Your task to perform on an android device: open app "Truecaller" (install if not already installed), go to login, and select forgot password Image 0: 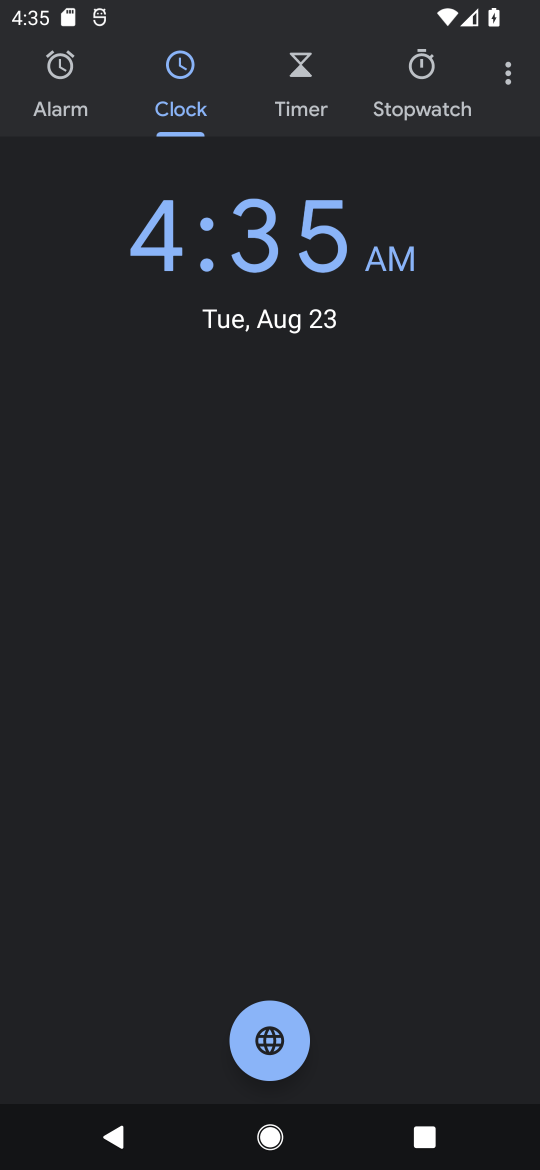
Step 0: press home button
Your task to perform on an android device: open app "Truecaller" (install if not already installed), go to login, and select forgot password Image 1: 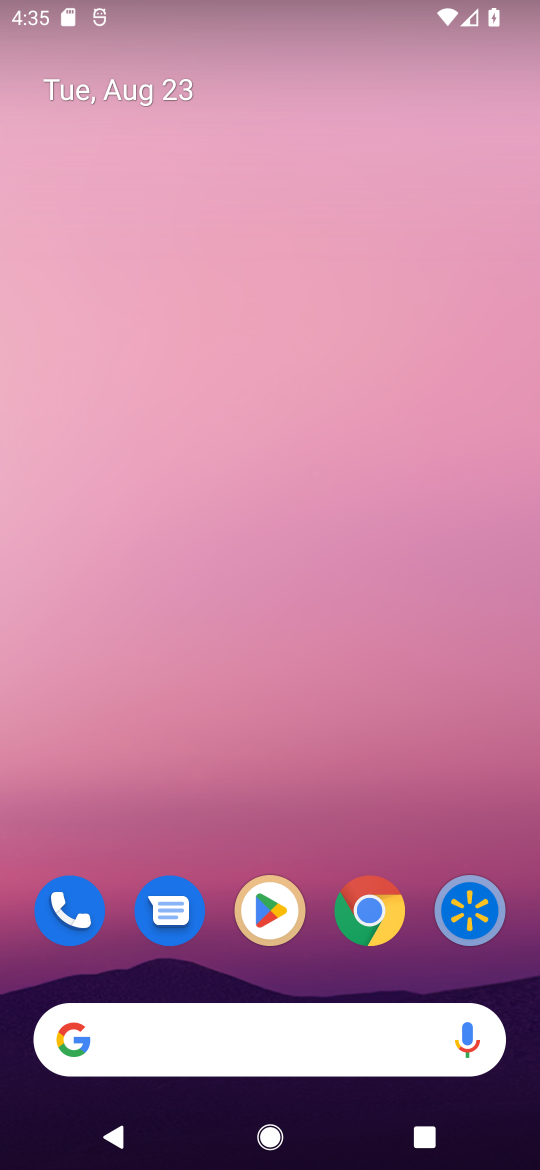
Step 1: drag from (311, 1006) to (259, 220)
Your task to perform on an android device: open app "Truecaller" (install if not already installed), go to login, and select forgot password Image 2: 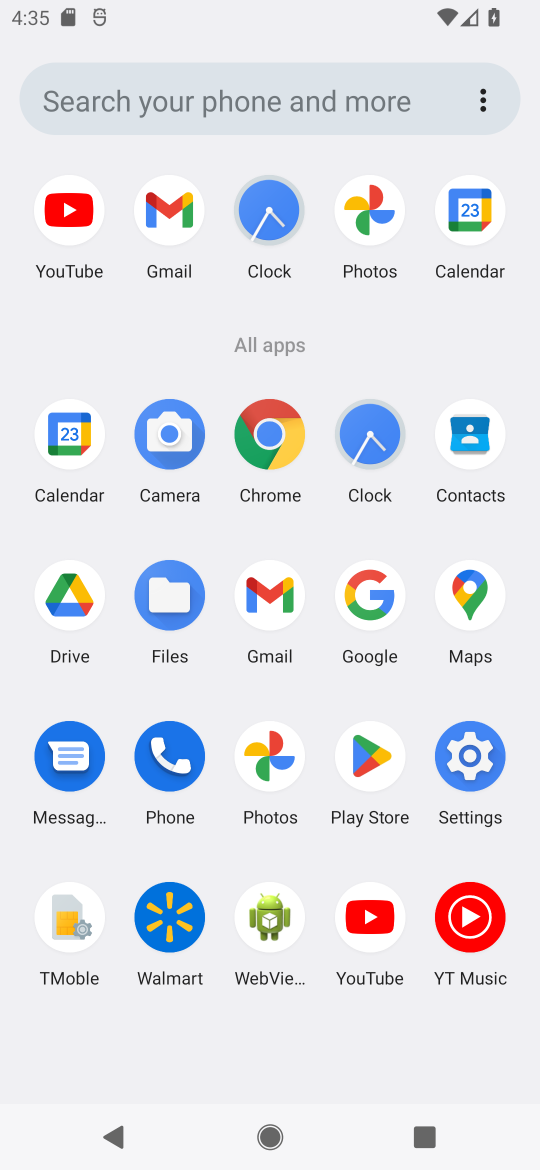
Step 2: click (356, 747)
Your task to perform on an android device: open app "Truecaller" (install if not already installed), go to login, and select forgot password Image 3: 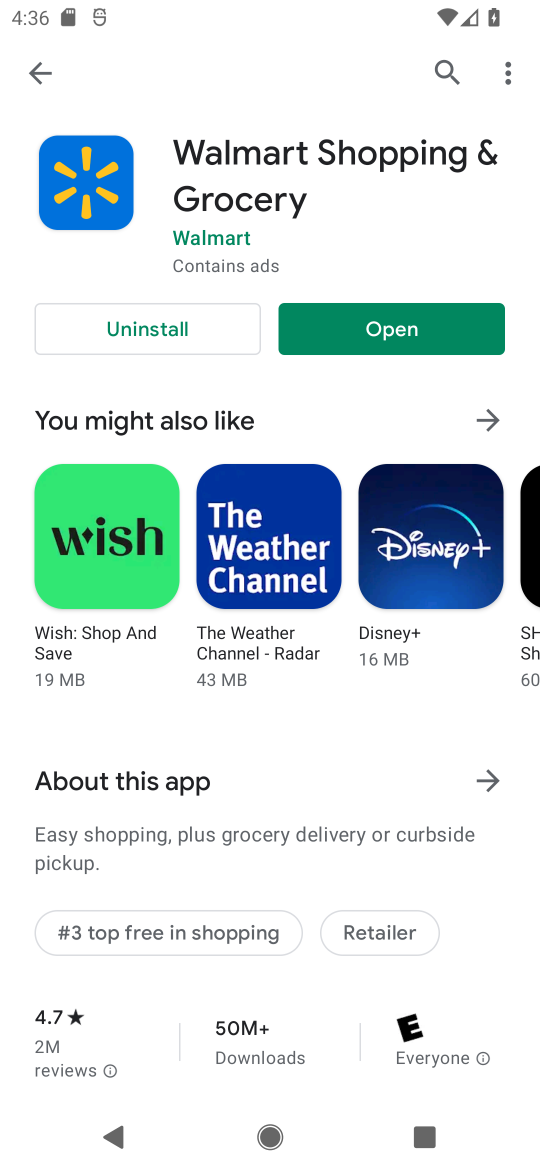
Step 3: click (444, 70)
Your task to perform on an android device: open app "Truecaller" (install if not already installed), go to login, and select forgot password Image 4: 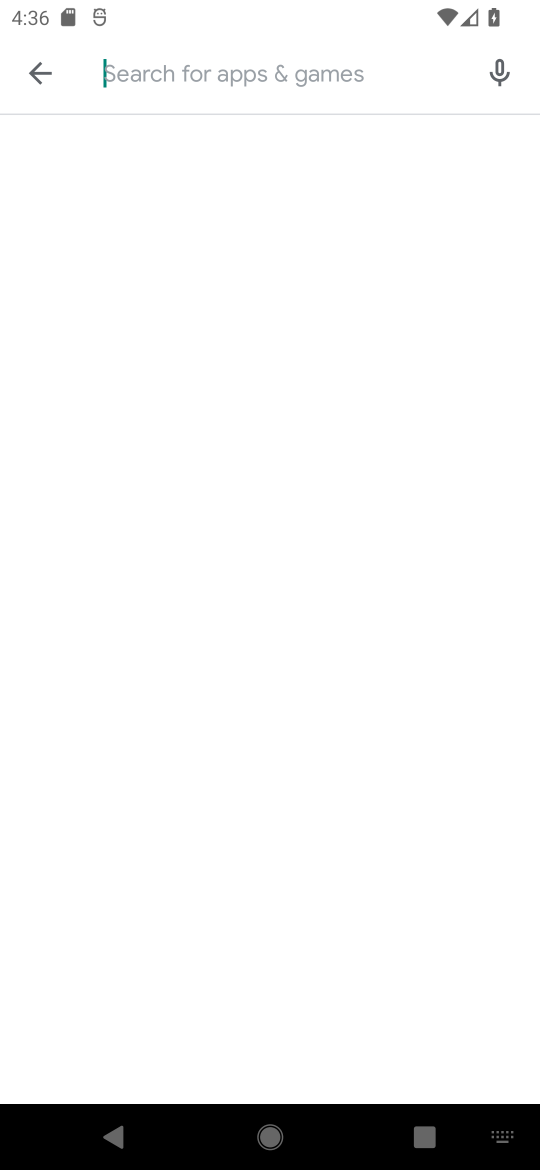
Step 4: type "Truecaller"
Your task to perform on an android device: open app "Truecaller" (install if not already installed), go to login, and select forgot password Image 5: 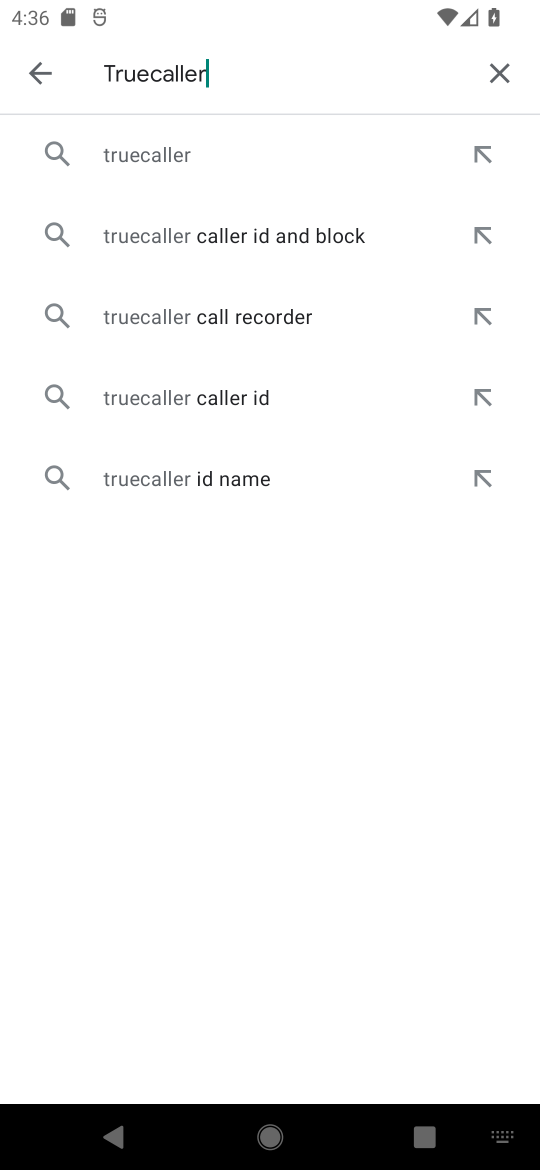
Step 5: click (131, 165)
Your task to perform on an android device: open app "Truecaller" (install if not already installed), go to login, and select forgot password Image 6: 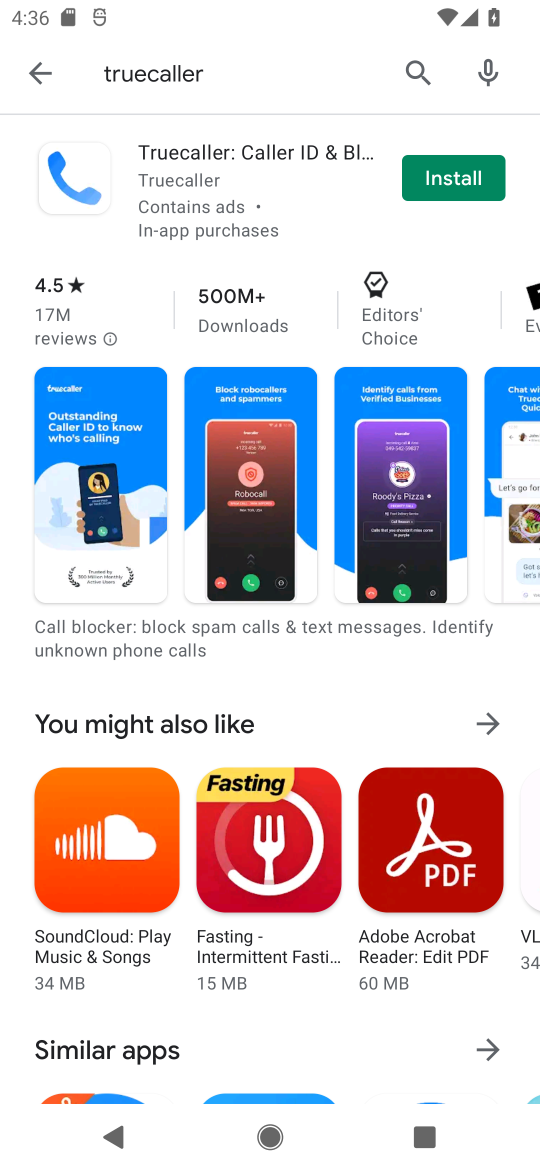
Step 6: click (461, 177)
Your task to perform on an android device: open app "Truecaller" (install if not already installed), go to login, and select forgot password Image 7: 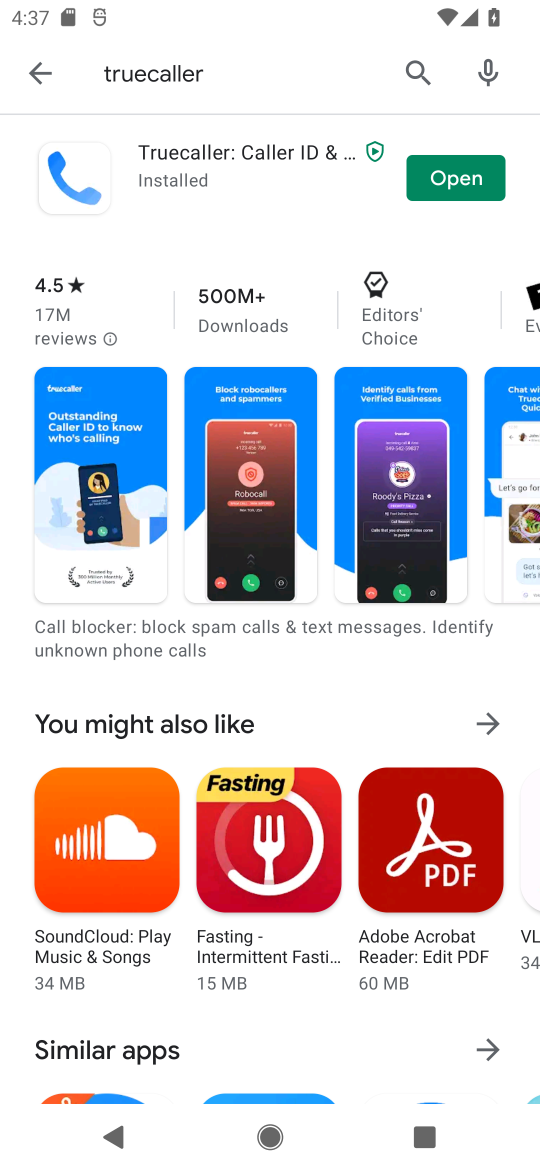
Step 7: click (443, 178)
Your task to perform on an android device: open app "Truecaller" (install if not already installed), go to login, and select forgot password Image 8: 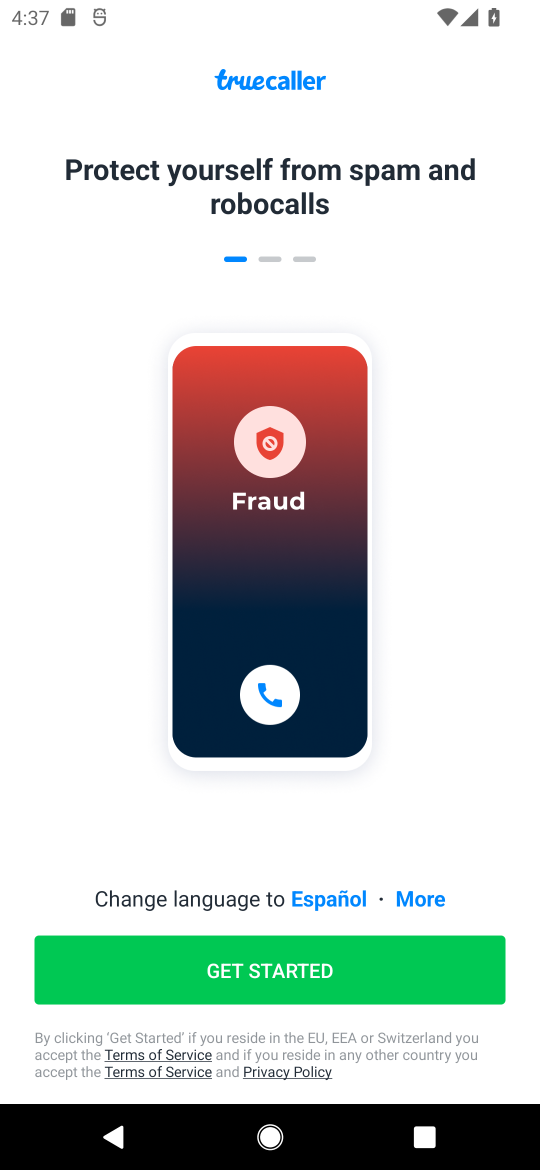
Step 8: task complete